Your task to perform on an android device: turn pop-ups on in chrome Image 0: 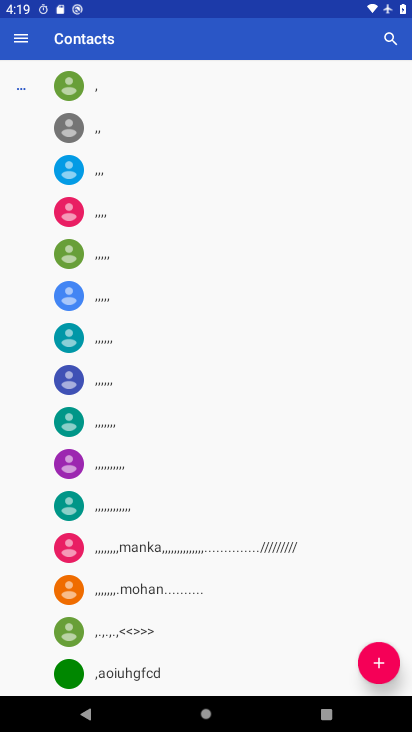
Step 0: press home button
Your task to perform on an android device: turn pop-ups on in chrome Image 1: 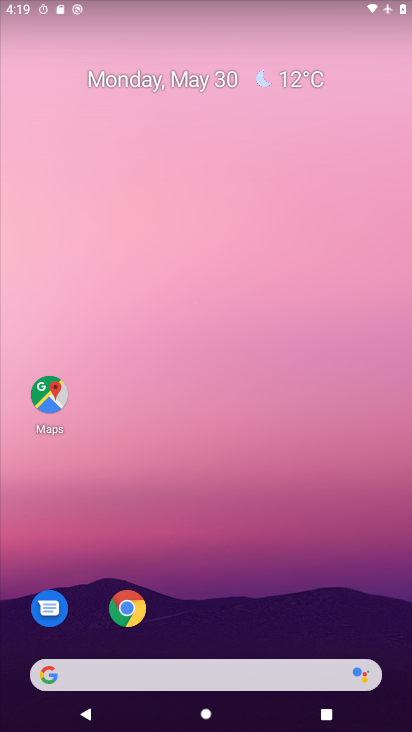
Step 1: click (128, 608)
Your task to perform on an android device: turn pop-ups on in chrome Image 2: 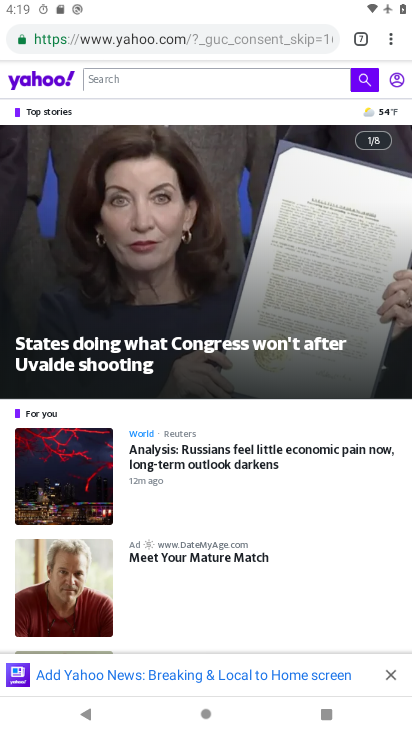
Step 2: click (393, 37)
Your task to perform on an android device: turn pop-ups on in chrome Image 3: 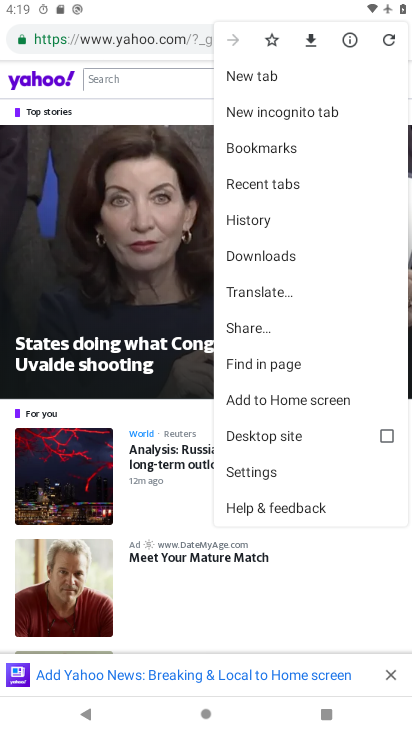
Step 3: click (274, 463)
Your task to perform on an android device: turn pop-ups on in chrome Image 4: 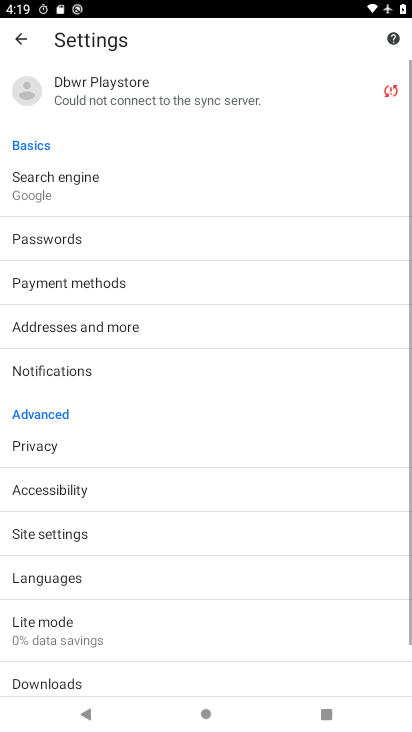
Step 4: click (33, 538)
Your task to perform on an android device: turn pop-ups on in chrome Image 5: 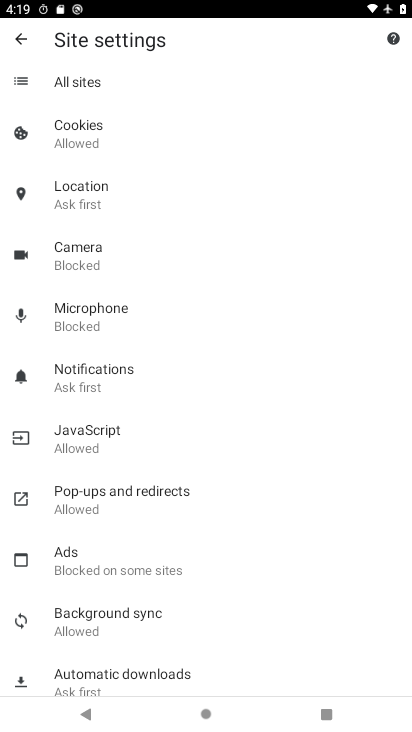
Step 5: click (131, 494)
Your task to perform on an android device: turn pop-ups on in chrome Image 6: 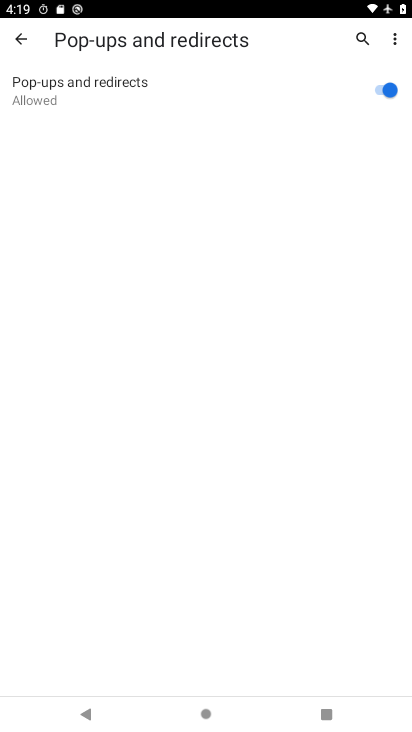
Step 6: task complete